Your task to perform on an android device: Go to Reddit.com Image 0: 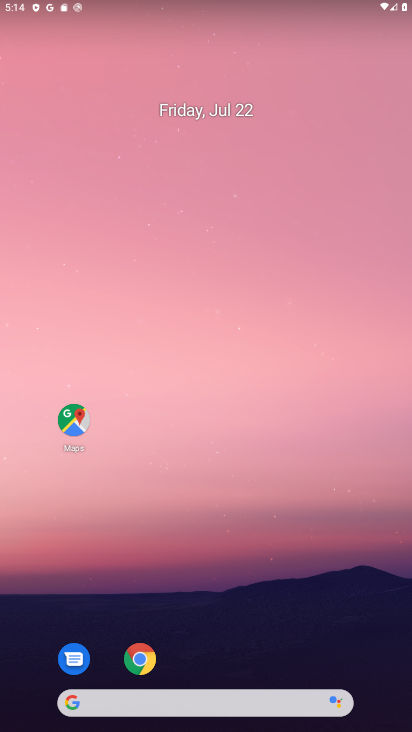
Step 0: press home button
Your task to perform on an android device: Go to Reddit.com Image 1: 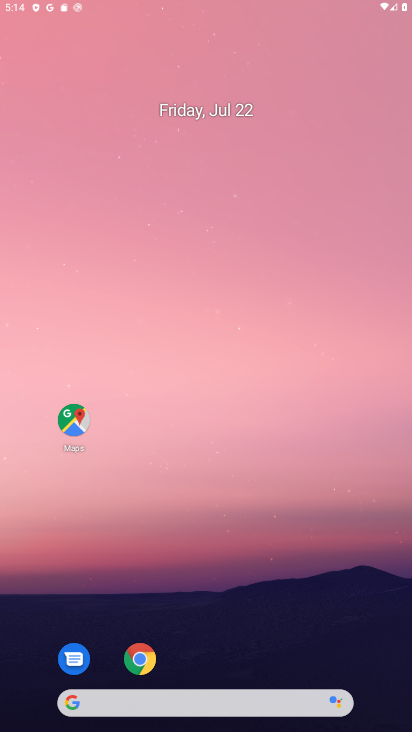
Step 1: drag from (198, 654) to (237, 117)
Your task to perform on an android device: Go to Reddit.com Image 2: 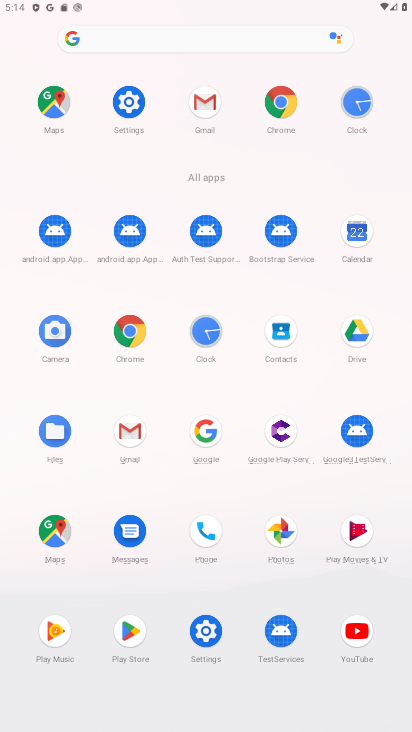
Step 2: click (280, 91)
Your task to perform on an android device: Go to Reddit.com Image 3: 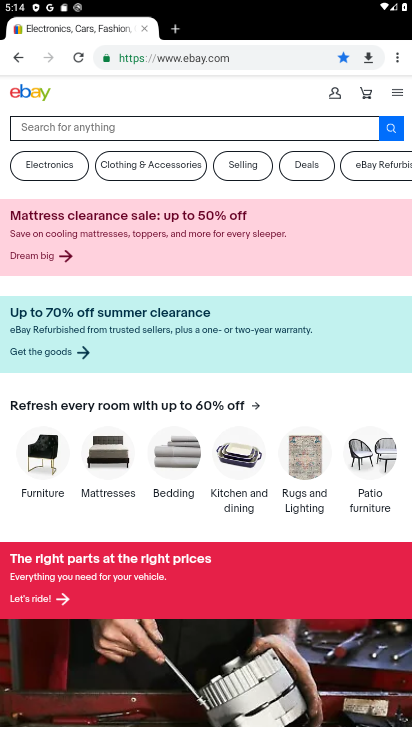
Step 3: click (173, 26)
Your task to perform on an android device: Go to Reddit.com Image 4: 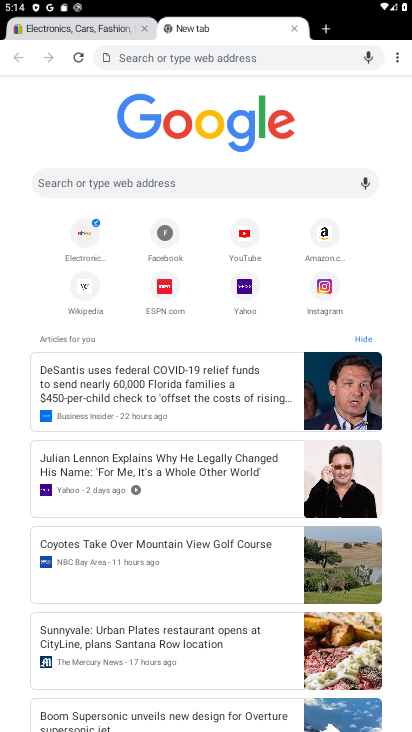
Step 4: click (156, 53)
Your task to perform on an android device: Go to Reddit.com Image 5: 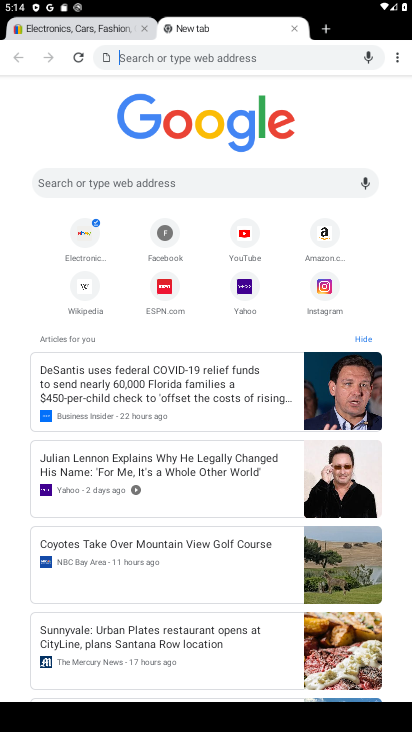
Step 5: type "reddit.com"
Your task to perform on an android device: Go to Reddit.com Image 6: 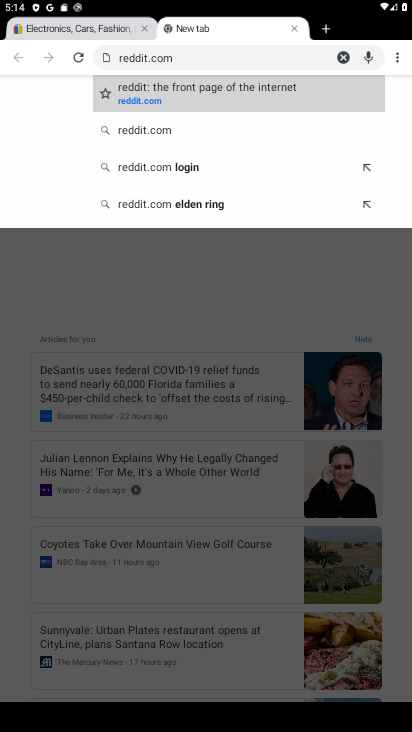
Step 6: click (178, 91)
Your task to perform on an android device: Go to Reddit.com Image 7: 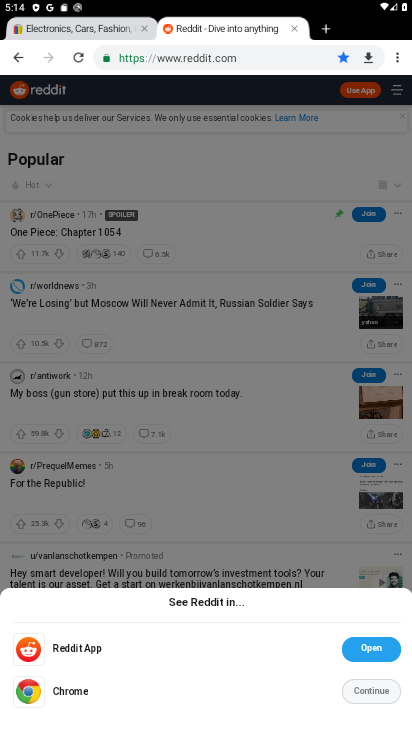
Step 7: click (376, 690)
Your task to perform on an android device: Go to Reddit.com Image 8: 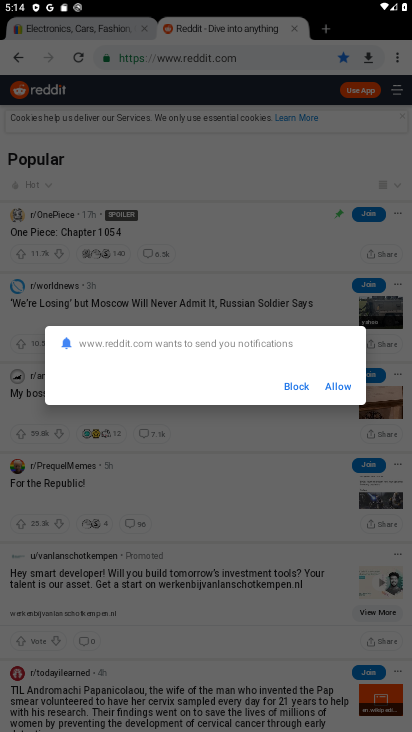
Step 8: click (343, 379)
Your task to perform on an android device: Go to Reddit.com Image 9: 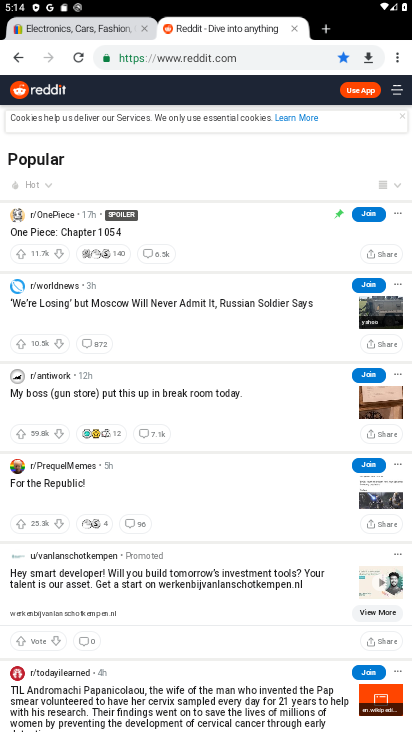
Step 9: task complete